Your task to perform on an android device: What is the recent news? Image 0: 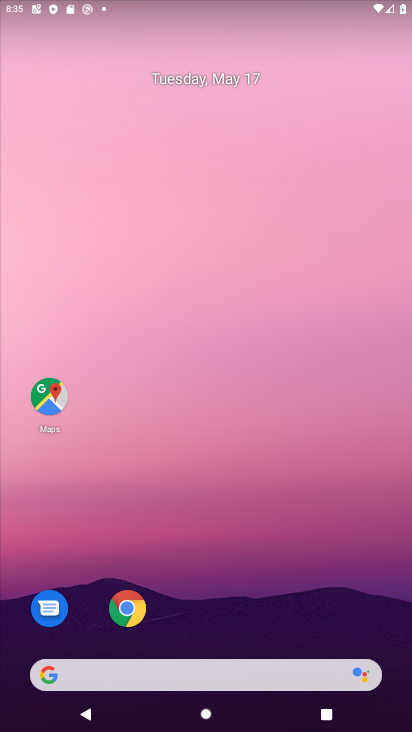
Step 0: drag from (230, 636) to (228, 81)
Your task to perform on an android device: What is the recent news? Image 1: 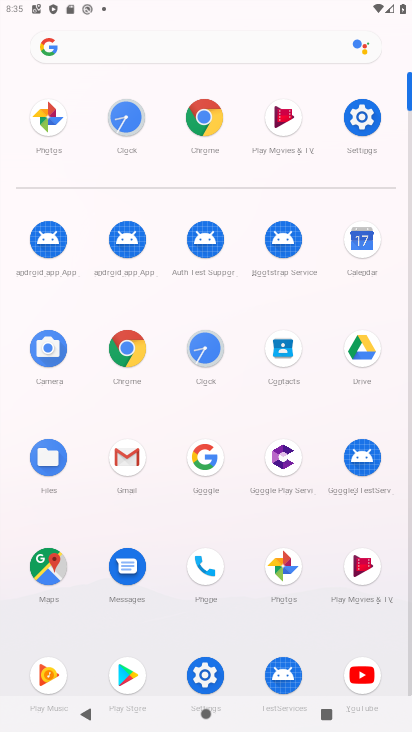
Step 1: click (204, 459)
Your task to perform on an android device: What is the recent news? Image 2: 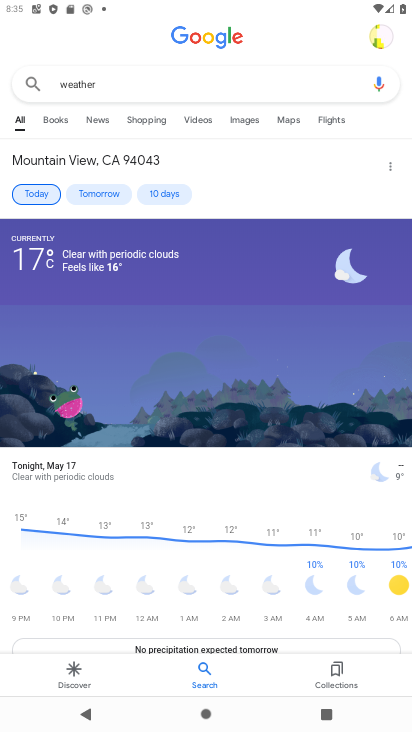
Step 2: click (98, 118)
Your task to perform on an android device: What is the recent news? Image 3: 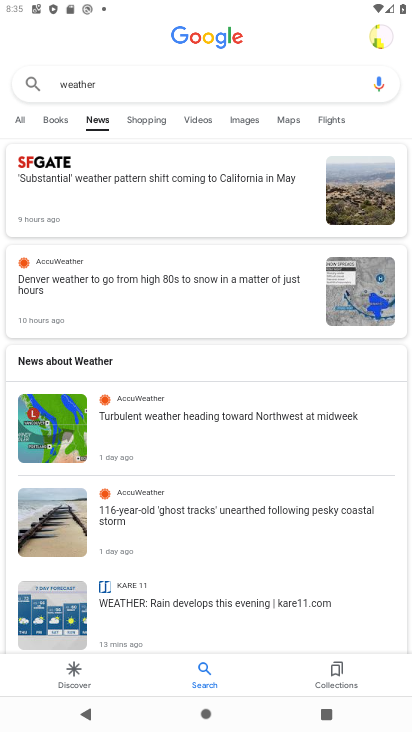
Step 3: task complete